Your task to perform on an android device: Set an alarm for 4pm Image 0: 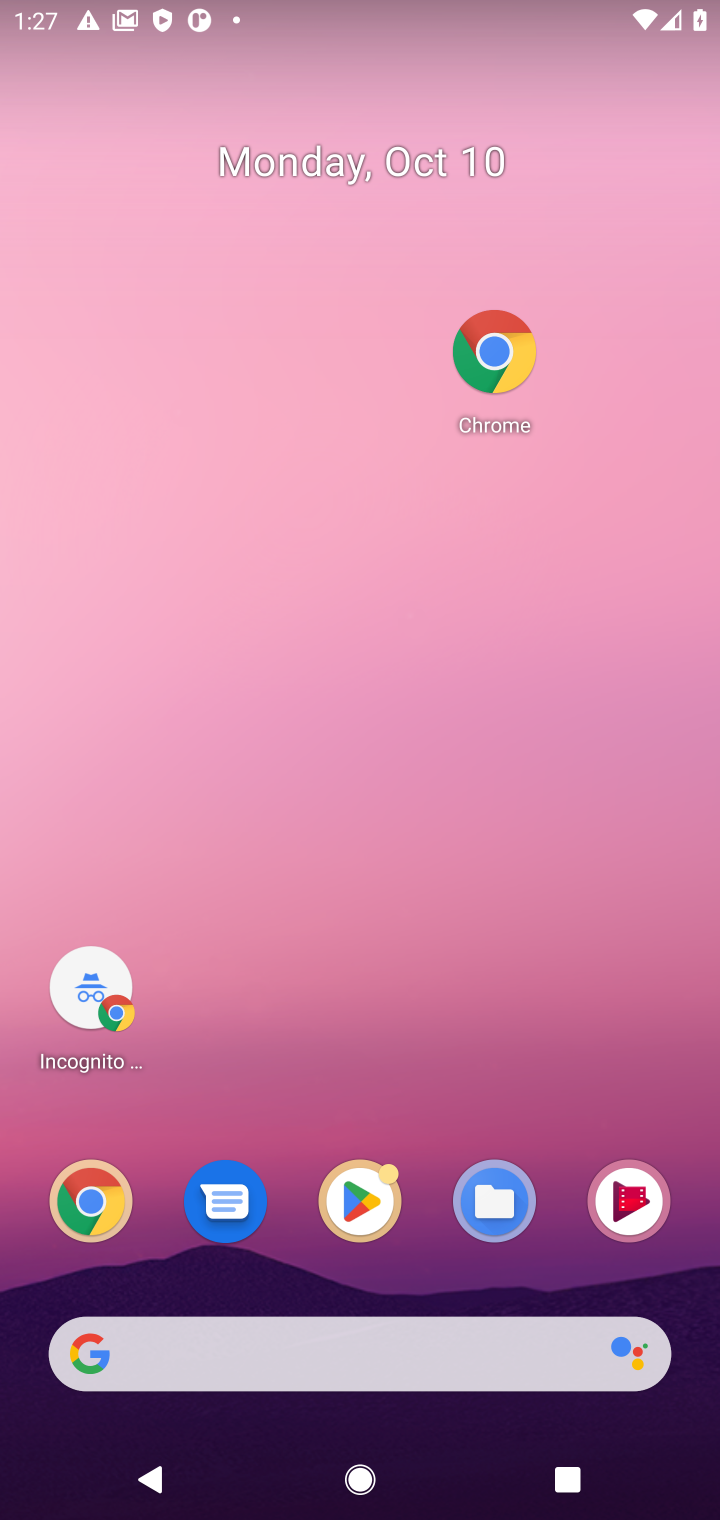
Step 0: drag from (400, 956) to (330, 66)
Your task to perform on an android device: Set an alarm for 4pm Image 1: 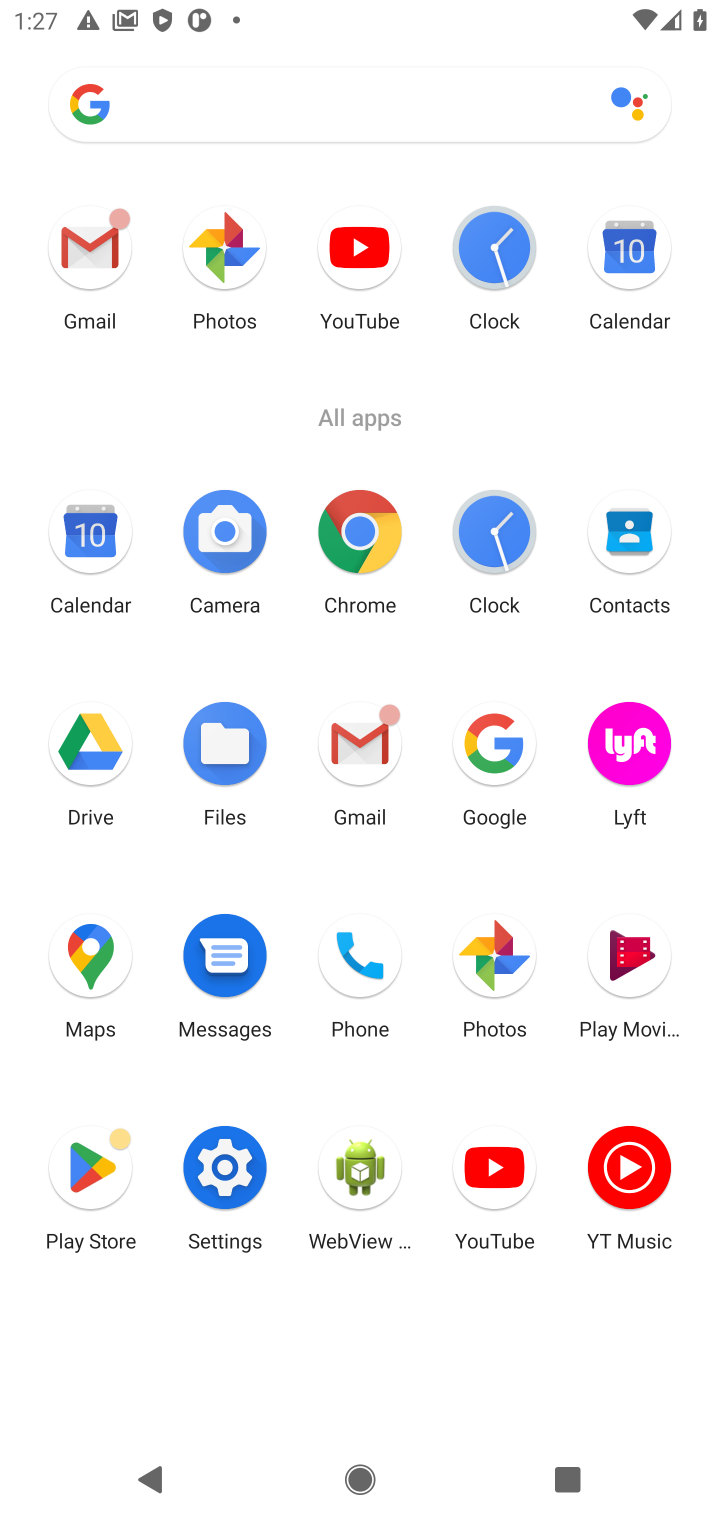
Step 1: click (485, 545)
Your task to perform on an android device: Set an alarm for 4pm Image 2: 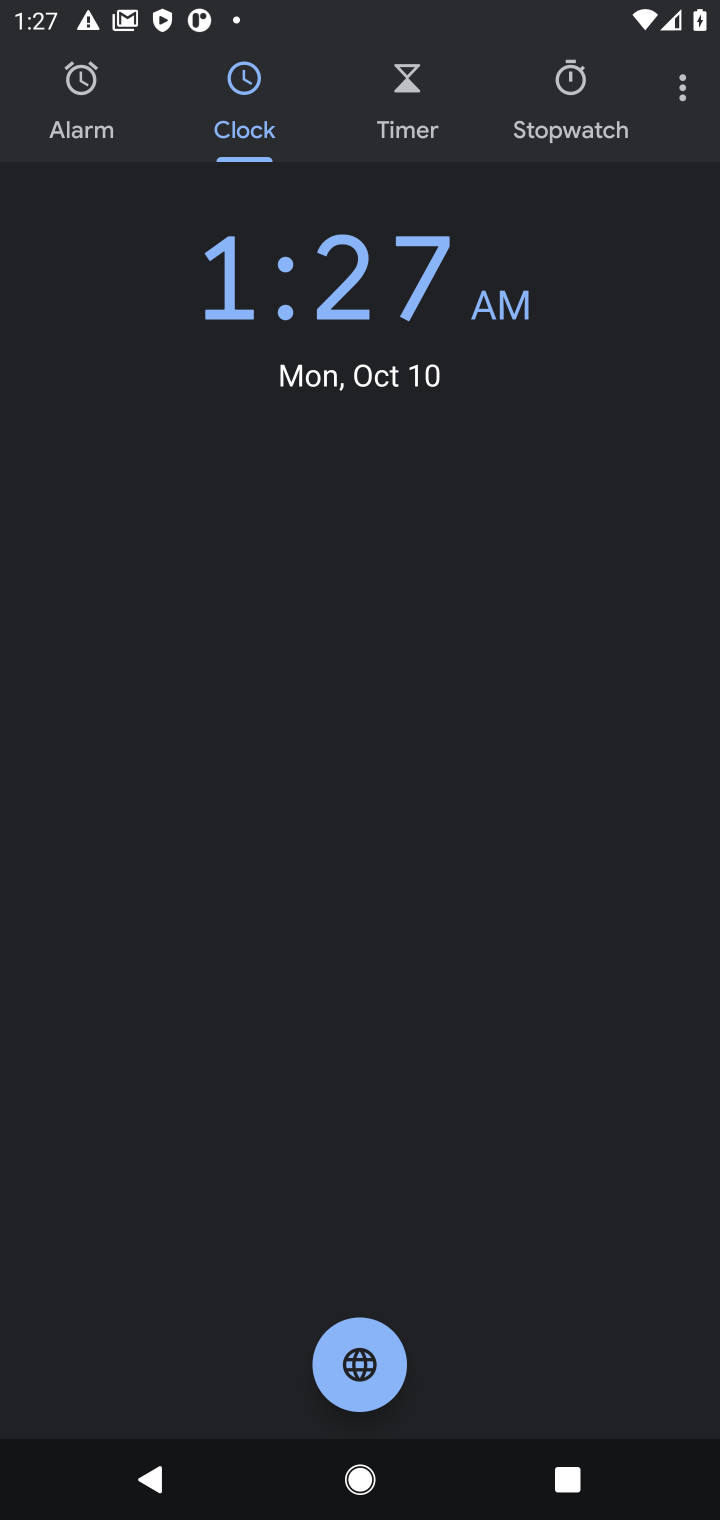
Step 2: click (71, 114)
Your task to perform on an android device: Set an alarm for 4pm Image 3: 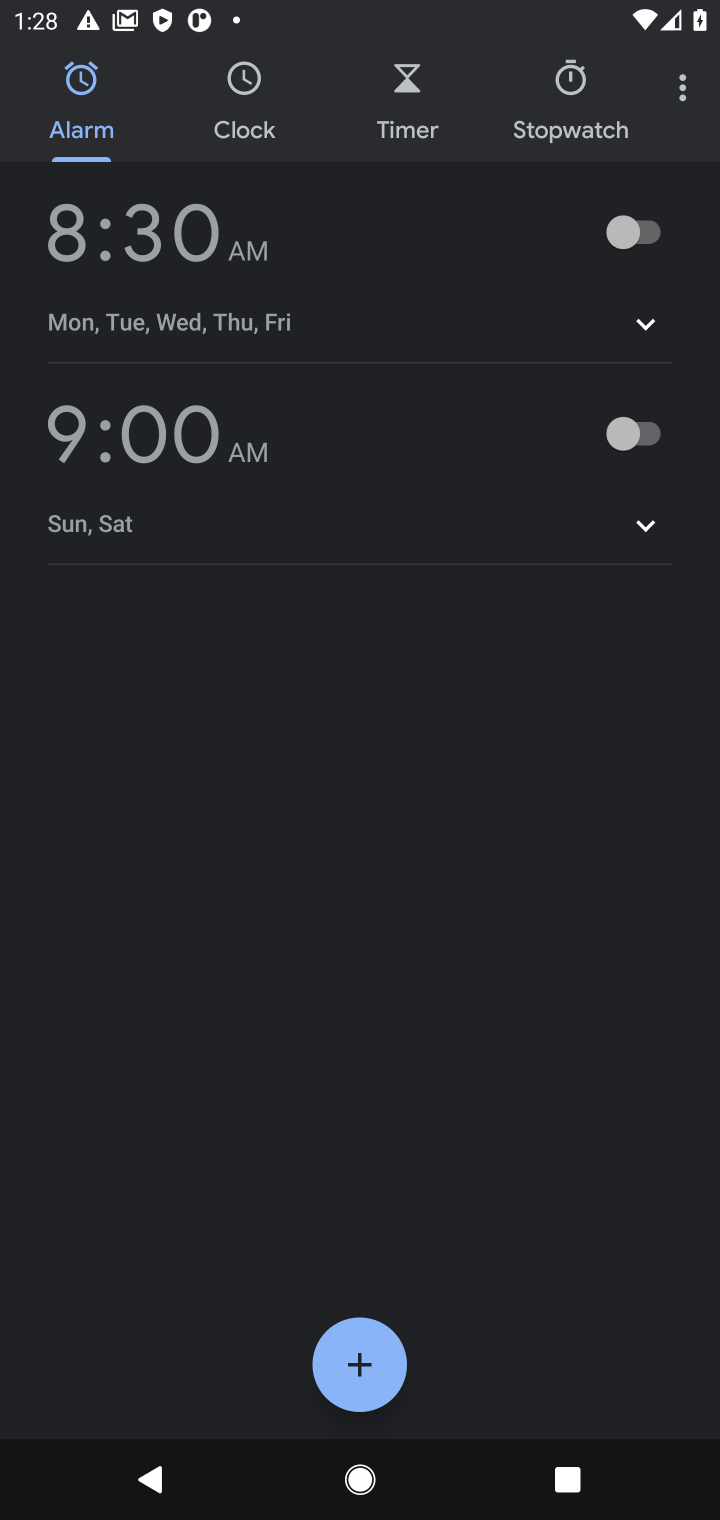
Step 3: click (361, 1327)
Your task to perform on an android device: Set an alarm for 4pm Image 4: 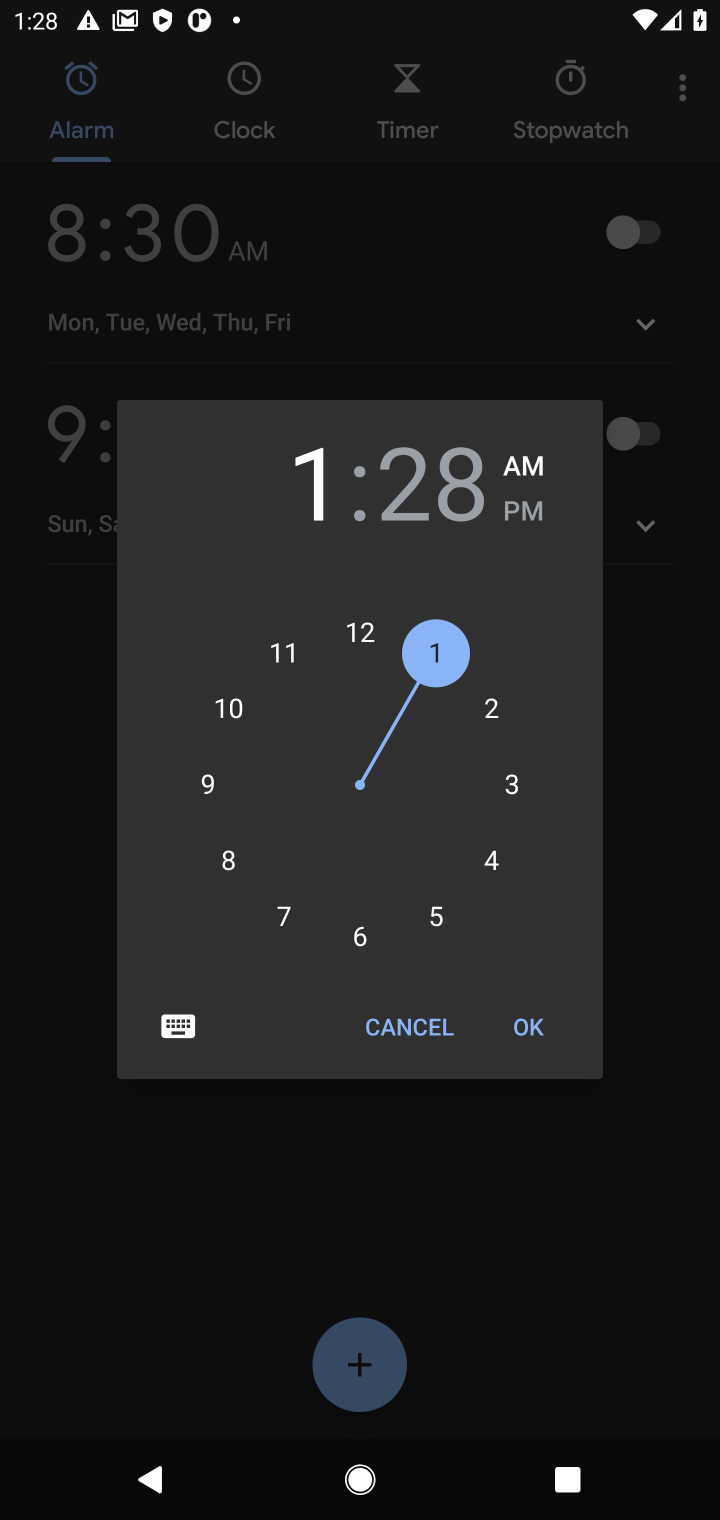
Step 4: click (484, 865)
Your task to perform on an android device: Set an alarm for 4pm Image 5: 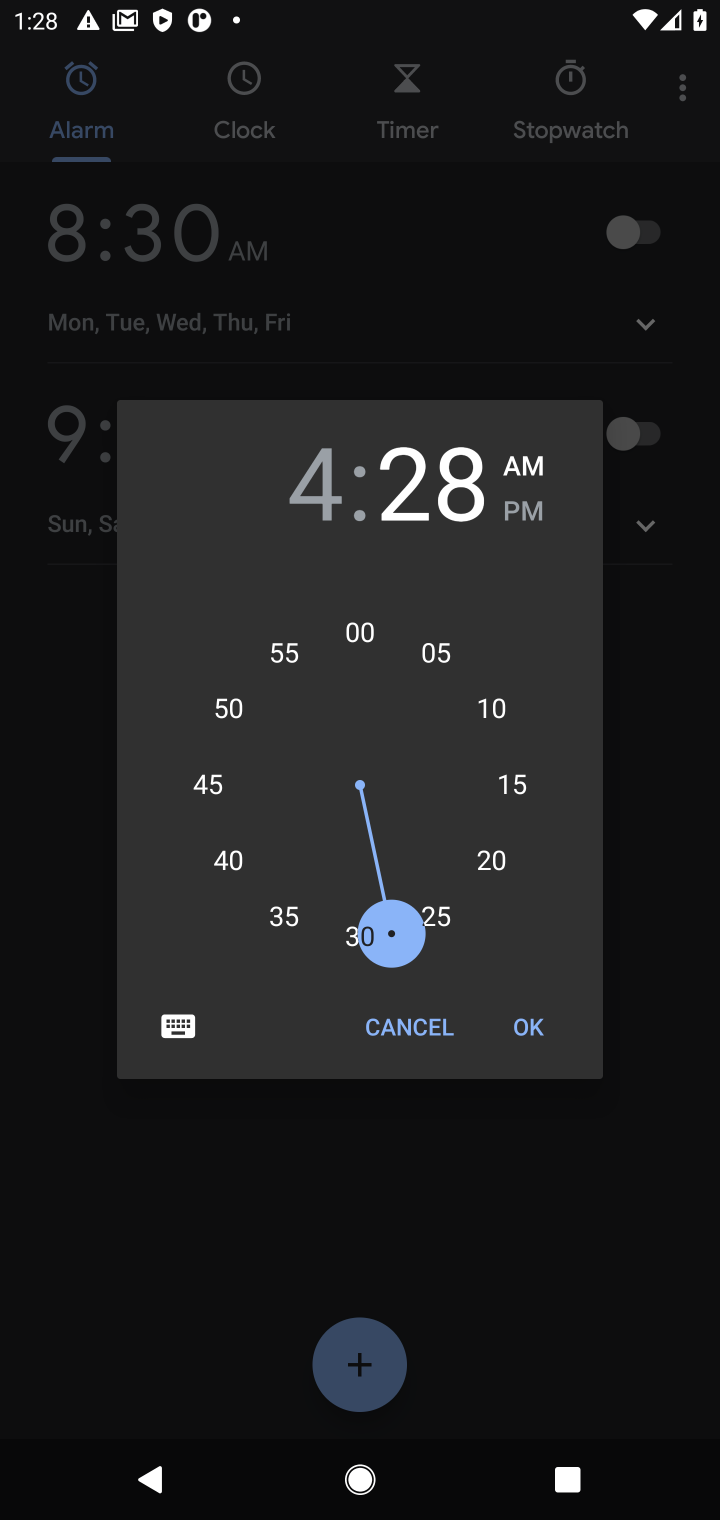
Step 5: click (343, 643)
Your task to perform on an android device: Set an alarm for 4pm Image 6: 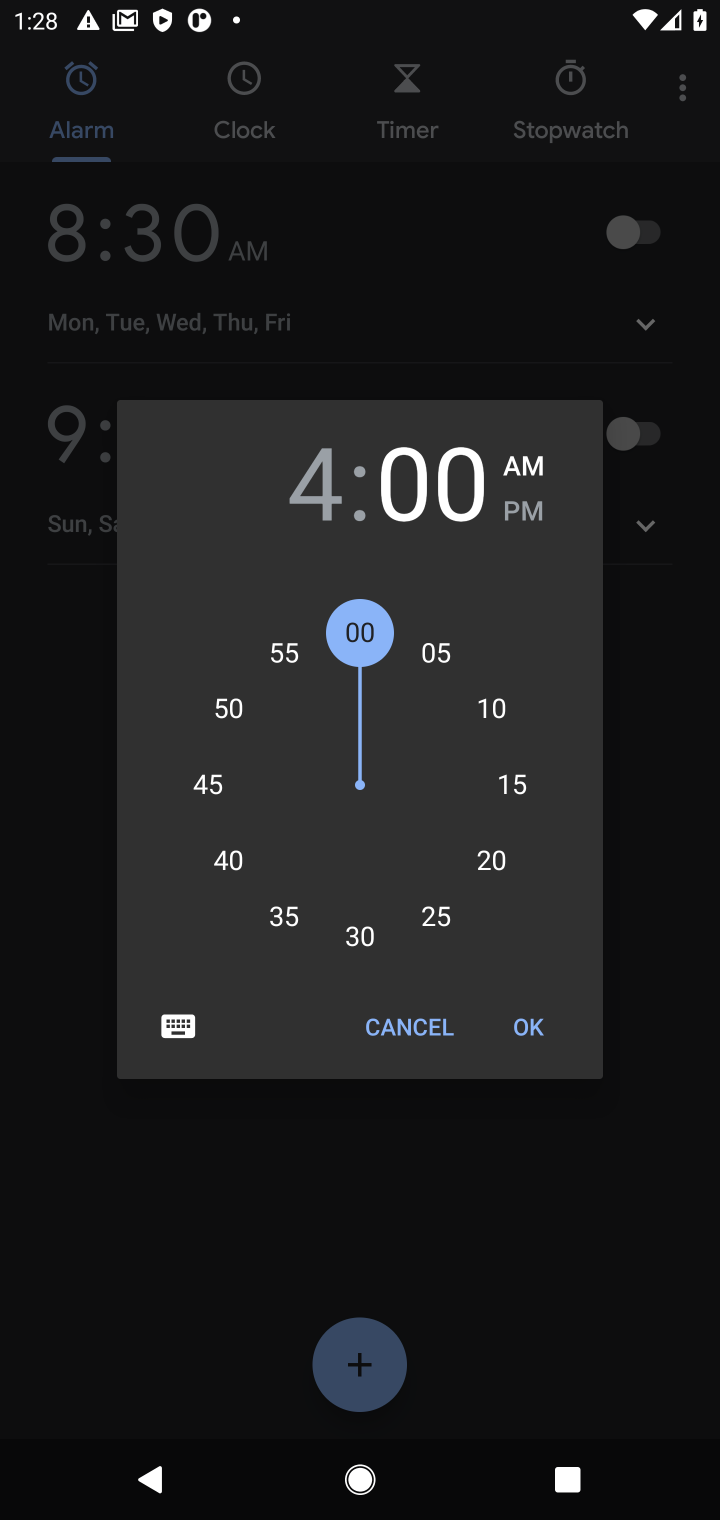
Step 6: click (513, 522)
Your task to perform on an android device: Set an alarm for 4pm Image 7: 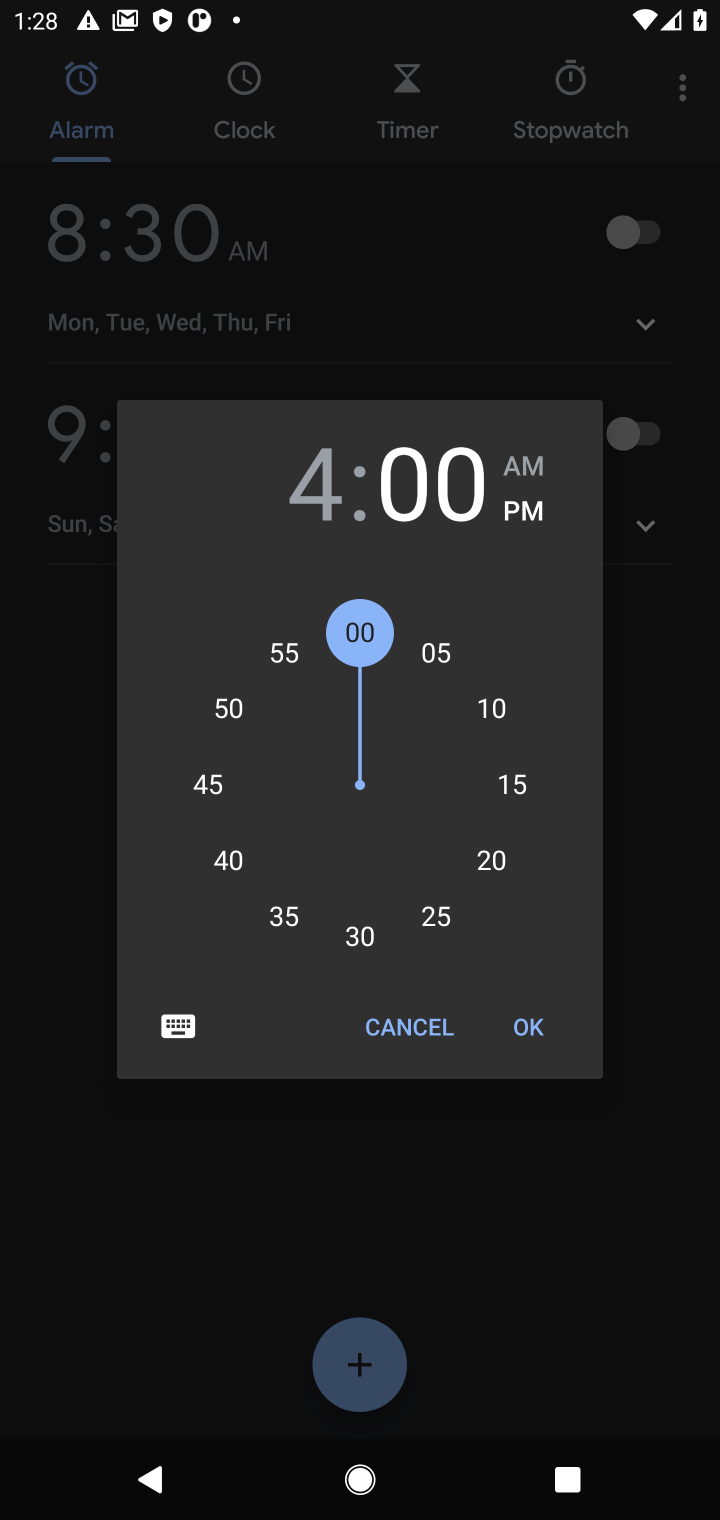
Step 7: click (527, 1026)
Your task to perform on an android device: Set an alarm for 4pm Image 8: 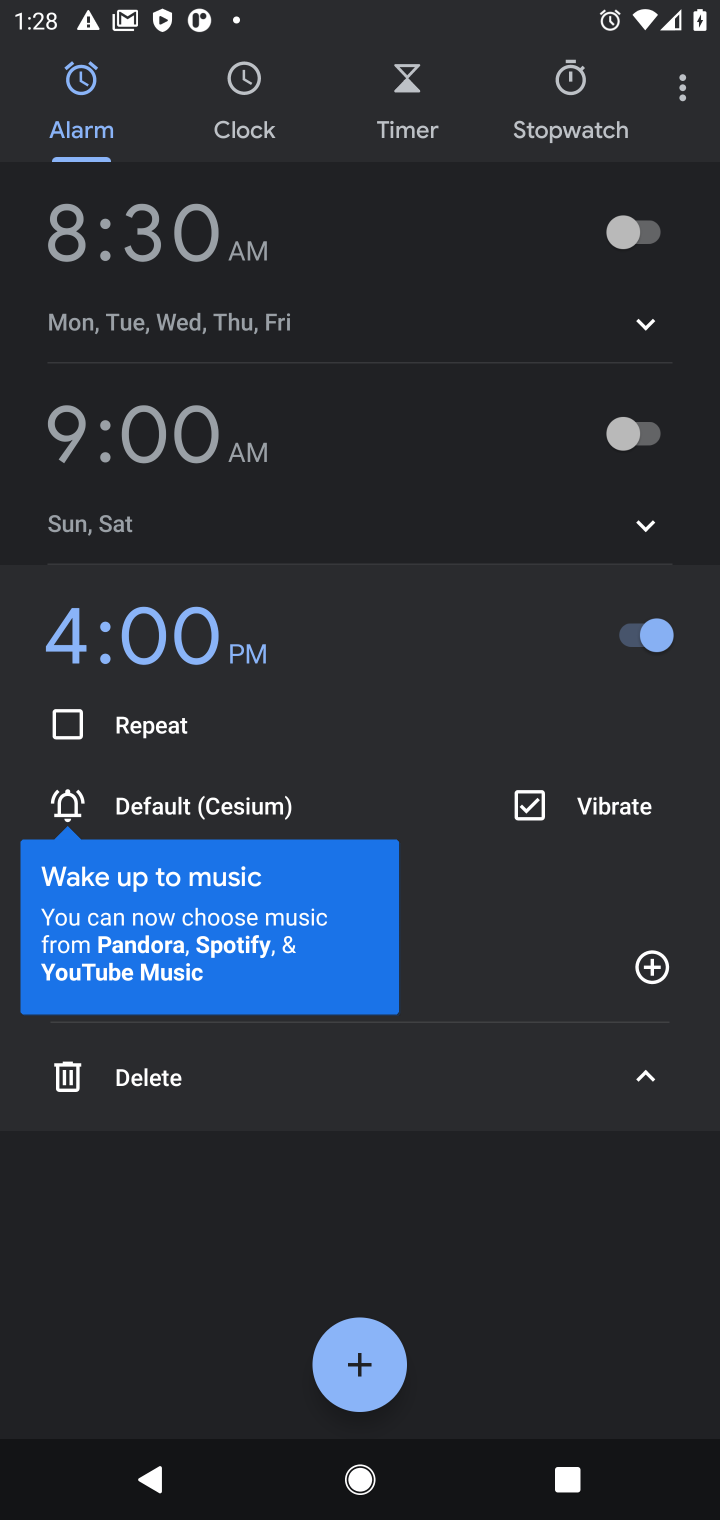
Step 8: task complete